Your task to perform on an android device: Open Yahoo.com Image 0: 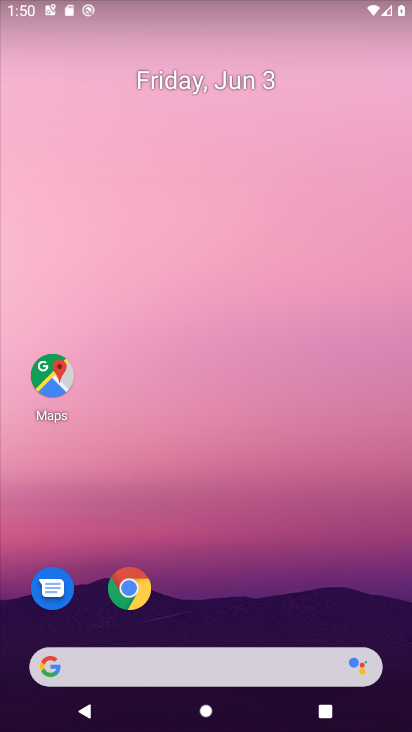
Step 0: click (127, 599)
Your task to perform on an android device: Open Yahoo.com Image 1: 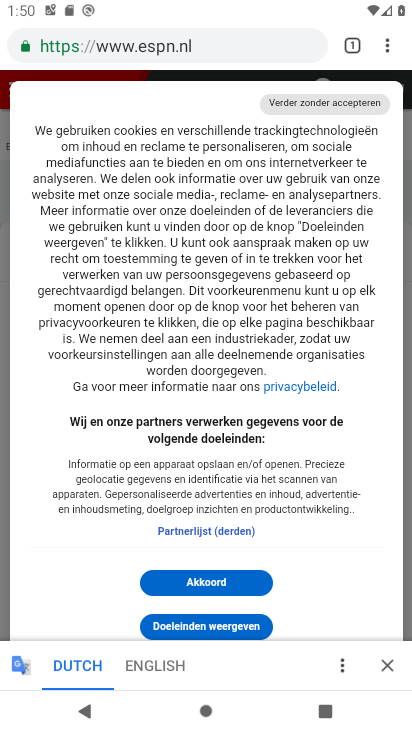
Step 1: click (233, 38)
Your task to perform on an android device: Open Yahoo.com Image 2: 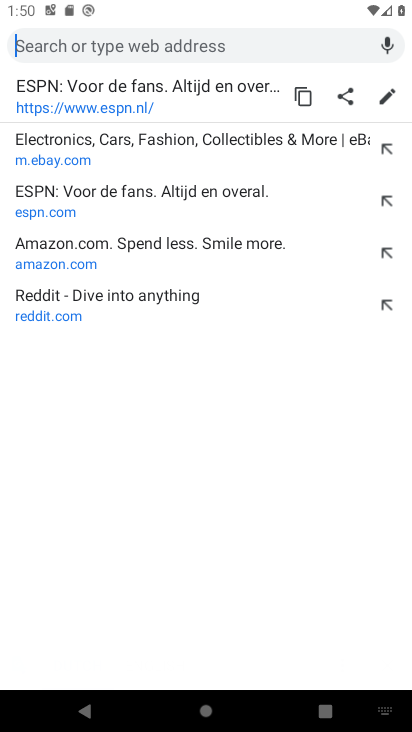
Step 2: type ";yahoo"
Your task to perform on an android device: Open Yahoo.com Image 3: 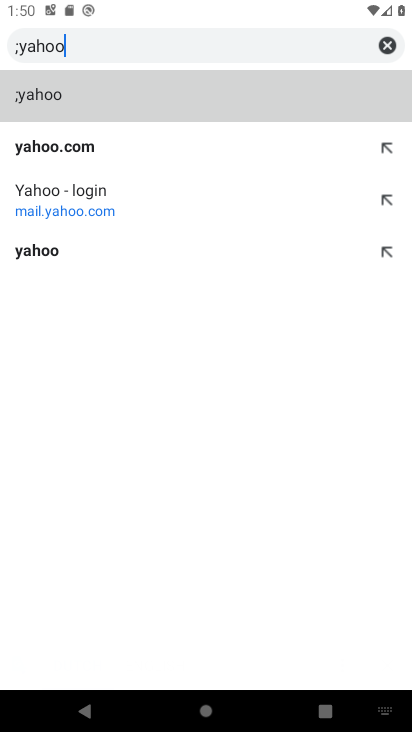
Step 3: click (161, 210)
Your task to perform on an android device: Open Yahoo.com Image 4: 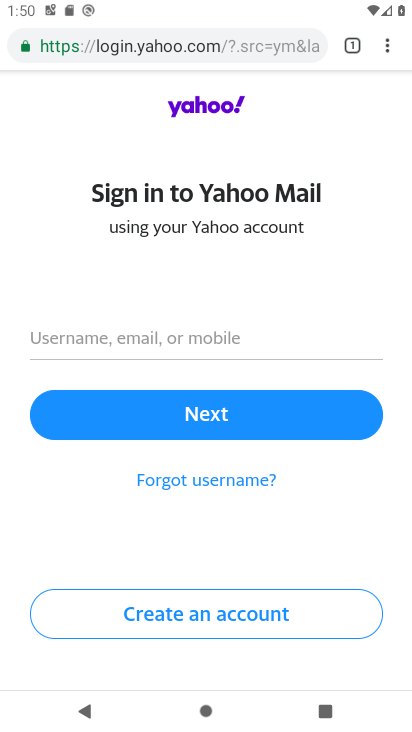
Step 4: task complete